Your task to perform on an android device: Open CNN.com Image 0: 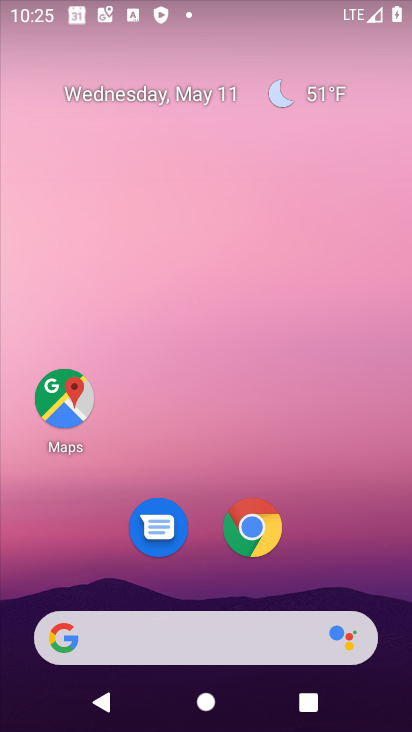
Step 0: drag from (320, 275) to (311, 33)
Your task to perform on an android device: Open CNN.com Image 1: 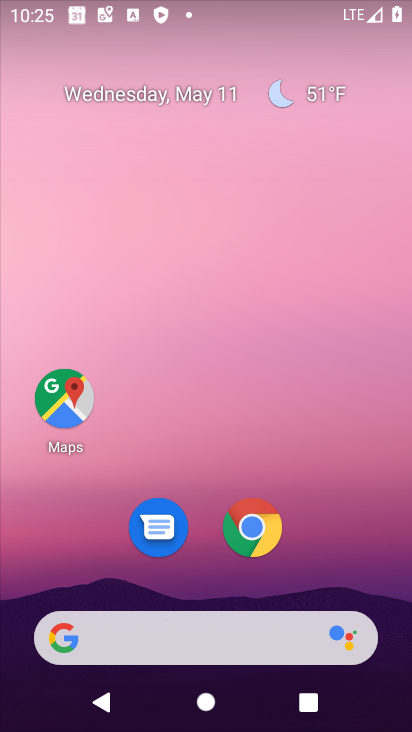
Step 1: click (245, 538)
Your task to perform on an android device: Open CNN.com Image 2: 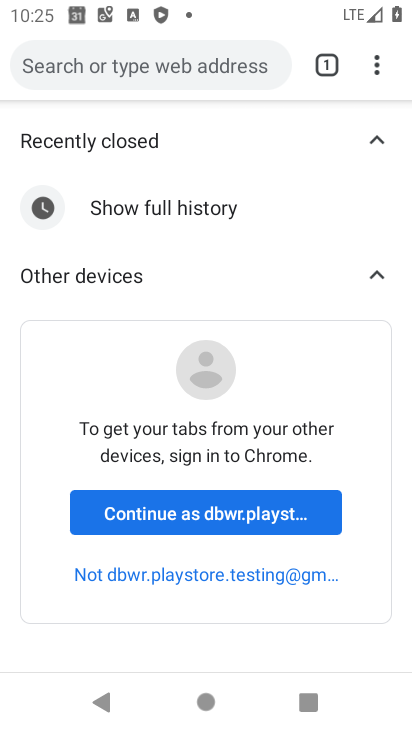
Step 2: click (116, 69)
Your task to perform on an android device: Open CNN.com Image 3: 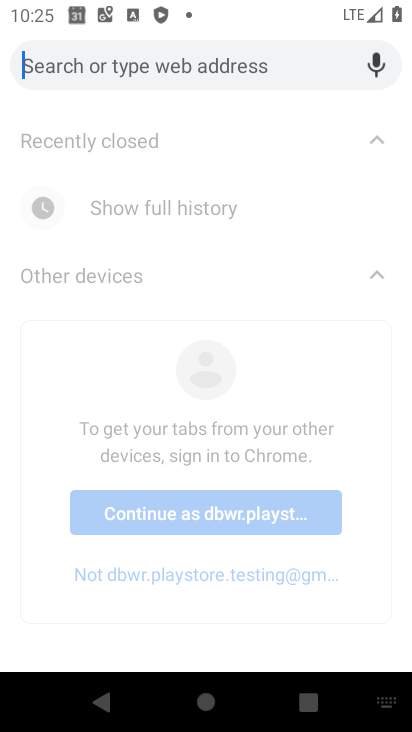
Step 3: click (165, 73)
Your task to perform on an android device: Open CNN.com Image 4: 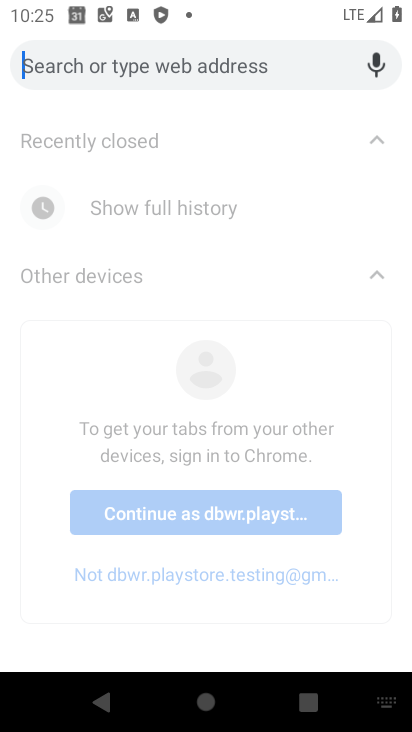
Step 4: type "cnn.com"
Your task to perform on an android device: Open CNN.com Image 5: 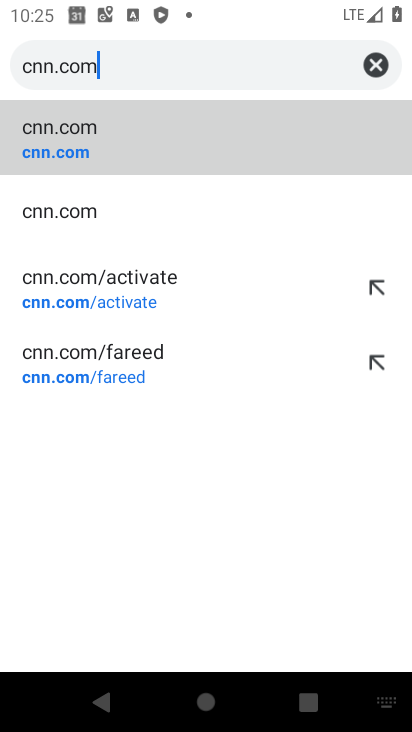
Step 5: click (33, 132)
Your task to perform on an android device: Open CNN.com Image 6: 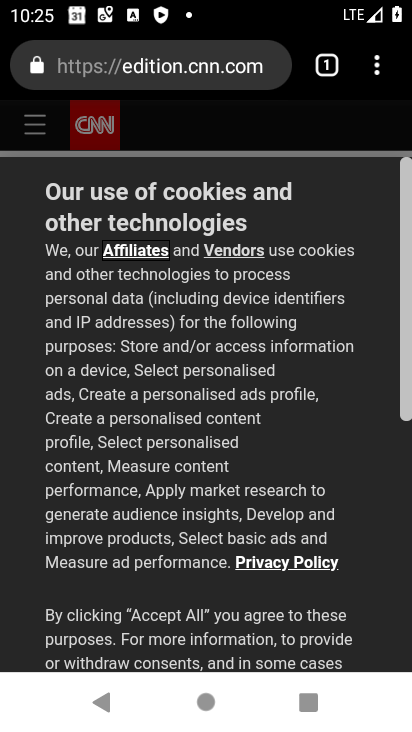
Step 6: task complete